Your task to perform on an android device: Open calendar and show me the third week of next month Image 0: 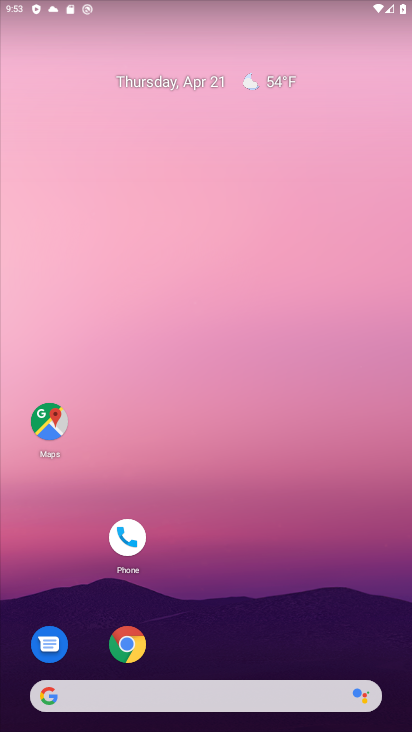
Step 0: drag from (346, 586) to (304, 209)
Your task to perform on an android device: Open calendar and show me the third week of next month Image 1: 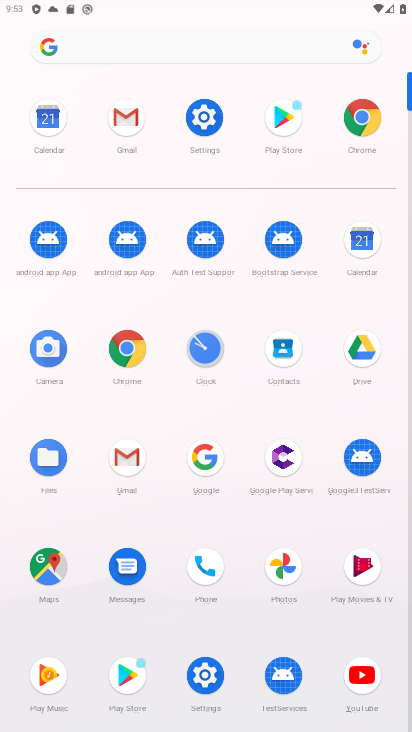
Step 1: click (367, 240)
Your task to perform on an android device: Open calendar and show me the third week of next month Image 2: 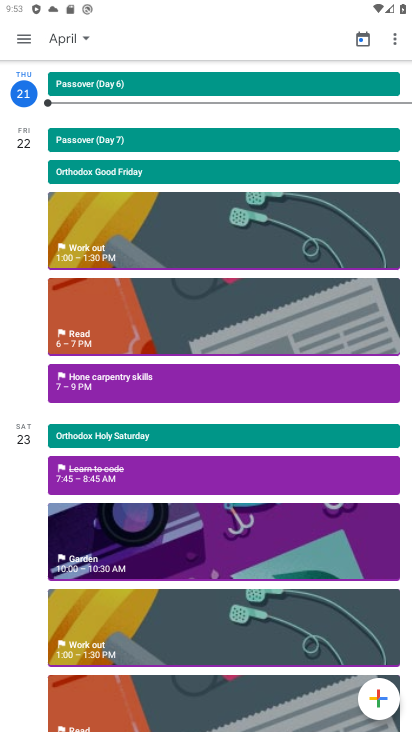
Step 2: click (64, 32)
Your task to perform on an android device: Open calendar and show me the third week of next month Image 3: 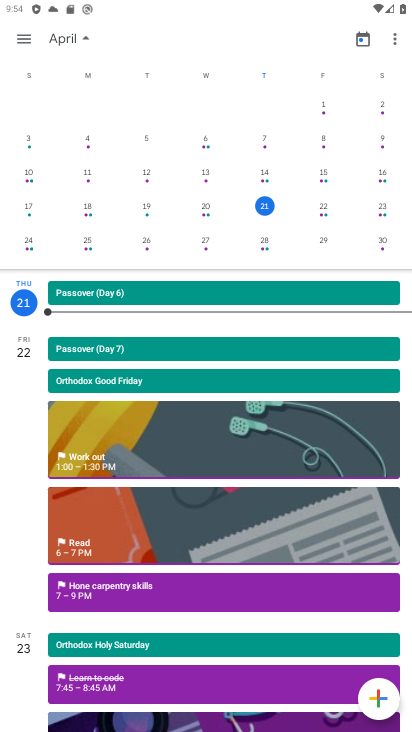
Step 3: drag from (372, 199) to (63, 190)
Your task to perform on an android device: Open calendar and show me the third week of next month Image 4: 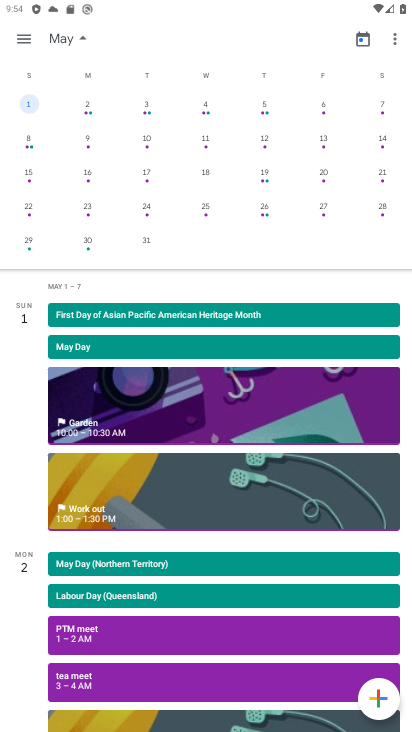
Step 4: click (93, 173)
Your task to perform on an android device: Open calendar and show me the third week of next month Image 5: 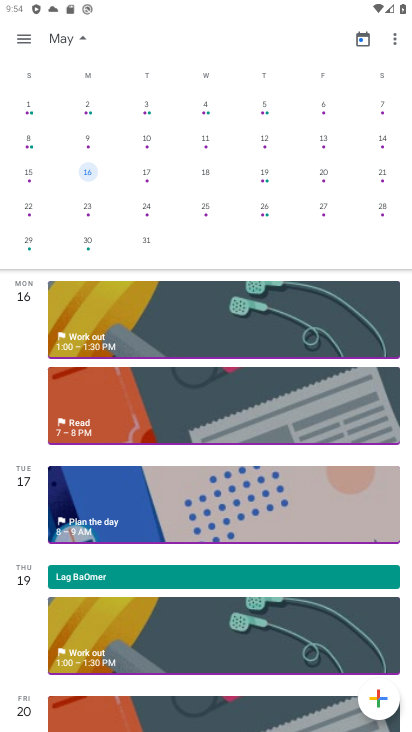
Step 5: task complete